Your task to perform on an android device: What is the news today? Image 0: 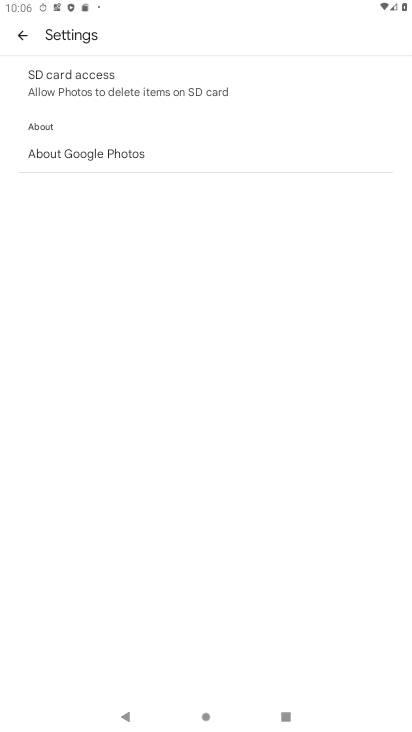
Step 0: press home button
Your task to perform on an android device: What is the news today? Image 1: 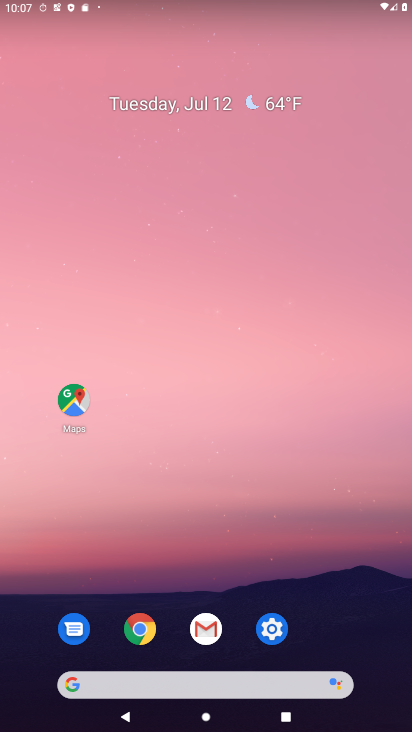
Step 1: click (182, 682)
Your task to perform on an android device: What is the news today? Image 2: 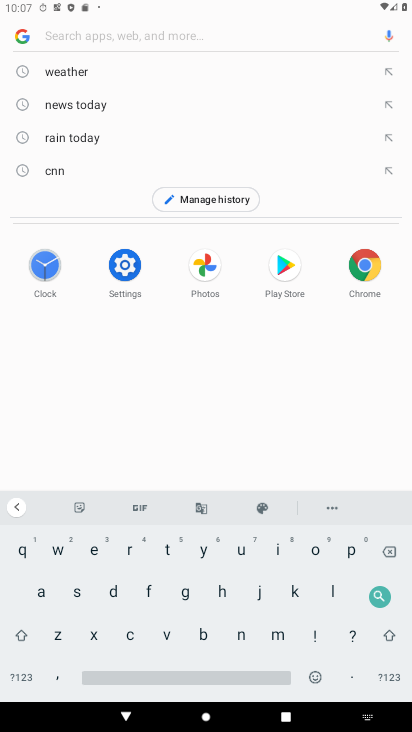
Step 2: click (101, 97)
Your task to perform on an android device: What is the news today? Image 3: 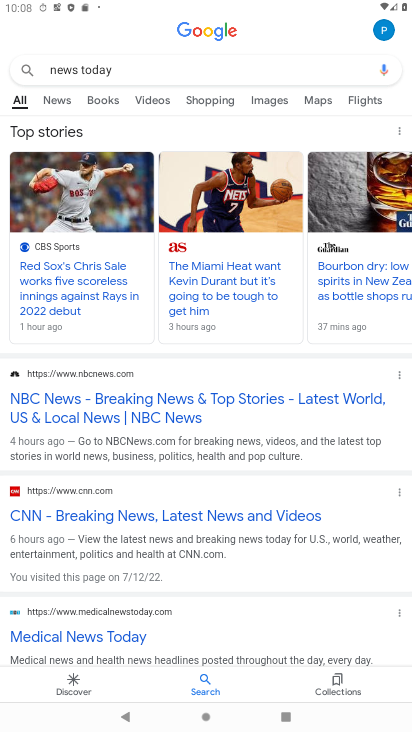
Step 3: task complete